Your task to perform on an android device: manage bookmarks in the chrome app Image 0: 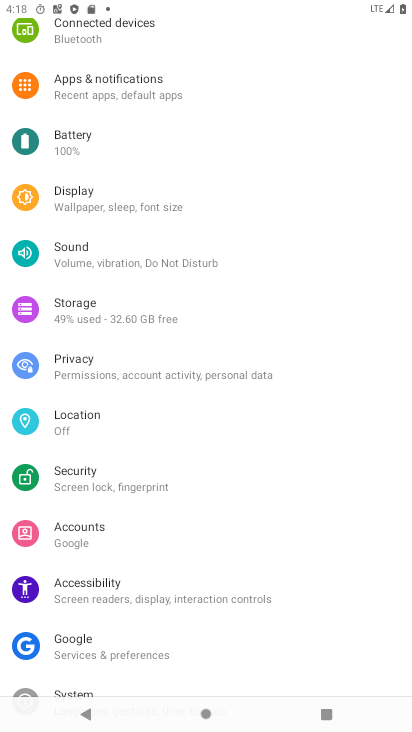
Step 0: press home button
Your task to perform on an android device: manage bookmarks in the chrome app Image 1: 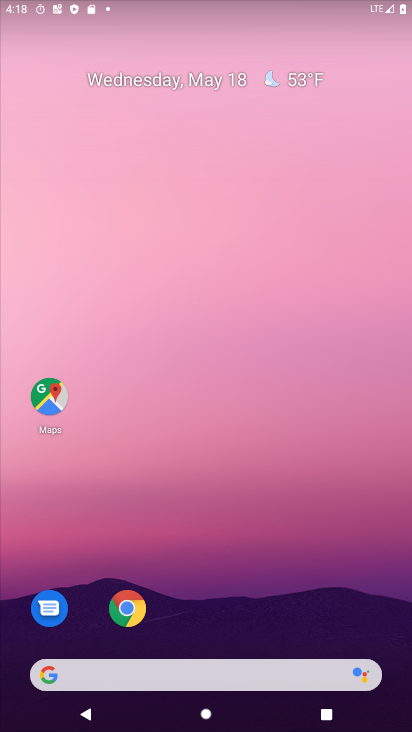
Step 1: drag from (314, 676) to (324, 27)
Your task to perform on an android device: manage bookmarks in the chrome app Image 2: 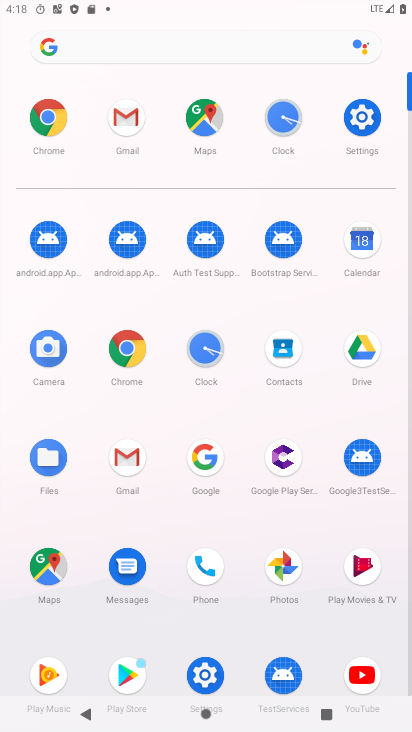
Step 2: click (123, 360)
Your task to perform on an android device: manage bookmarks in the chrome app Image 3: 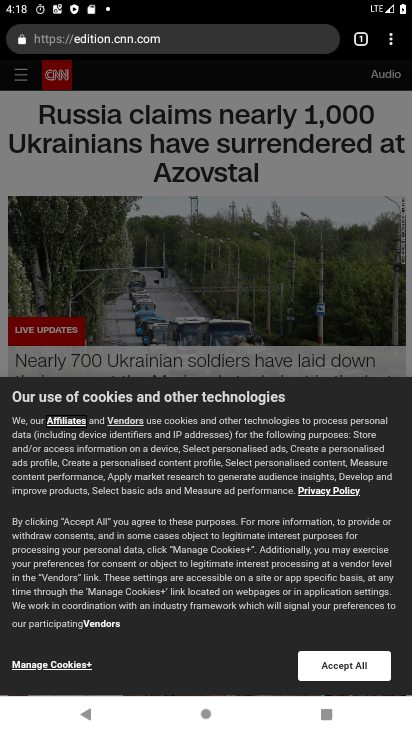
Step 3: click (399, 39)
Your task to perform on an android device: manage bookmarks in the chrome app Image 4: 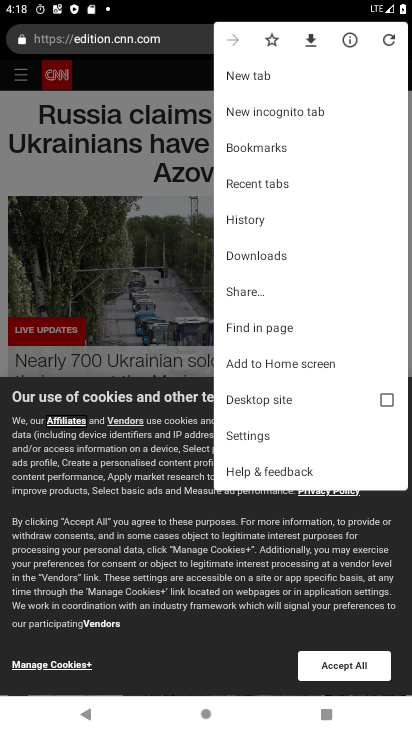
Step 4: click (264, 145)
Your task to perform on an android device: manage bookmarks in the chrome app Image 5: 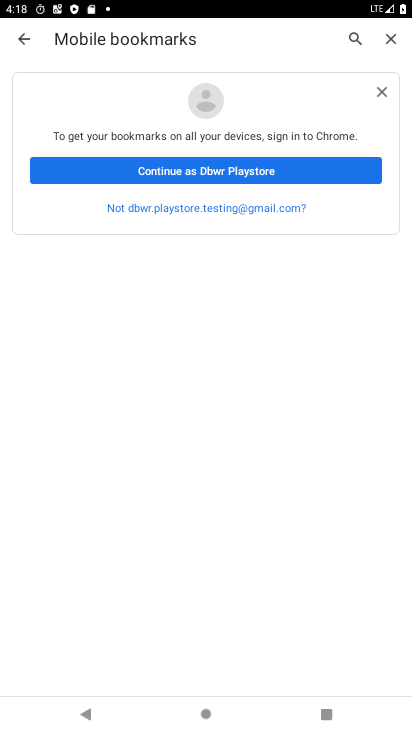
Step 5: task complete